Your task to perform on an android device: What's the weather? Image 0: 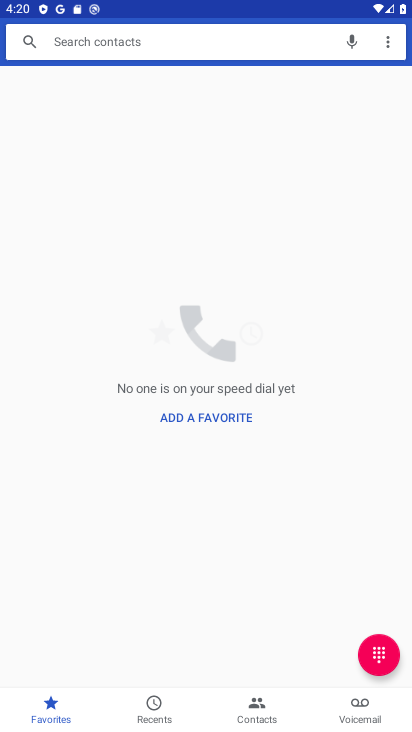
Step 0: press back button
Your task to perform on an android device: What's the weather? Image 1: 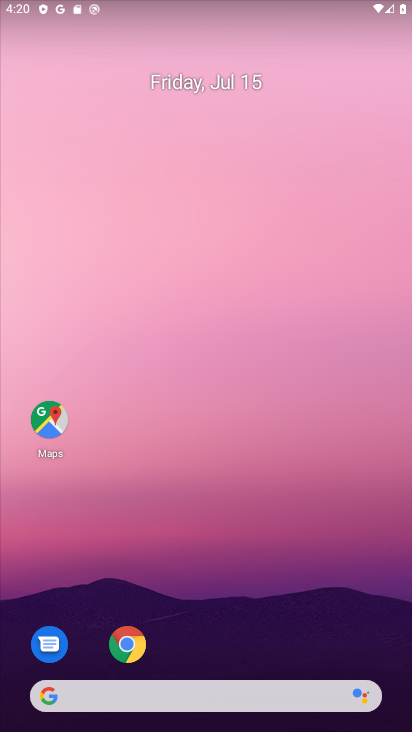
Step 1: drag from (250, 636) to (202, 143)
Your task to perform on an android device: What's the weather? Image 2: 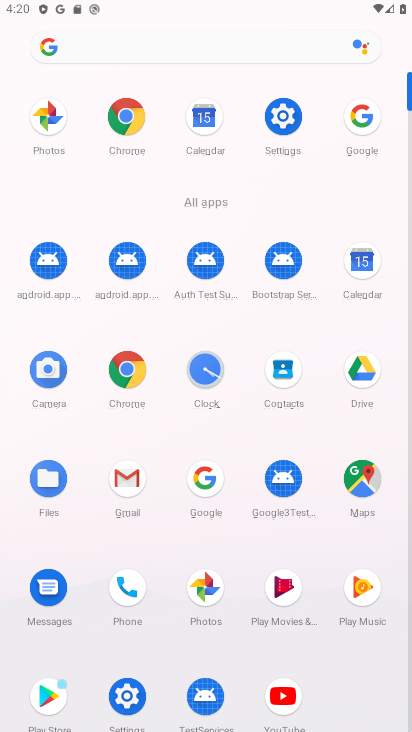
Step 2: click (360, 130)
Your task to perform on an android device: What's the weather? Image 3: 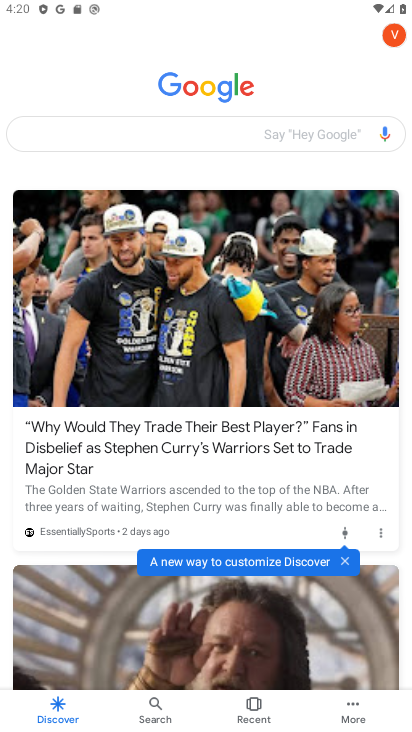
Step 3: click (88, 130)
Your task to perform on an android device: What's the weather? Image 4: 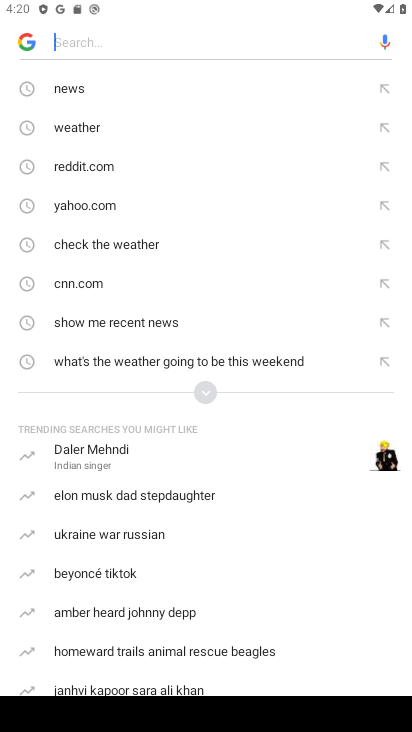
Step 4: click (88, 130)
Your task to perform on an android device: What's the weather? Image 5: 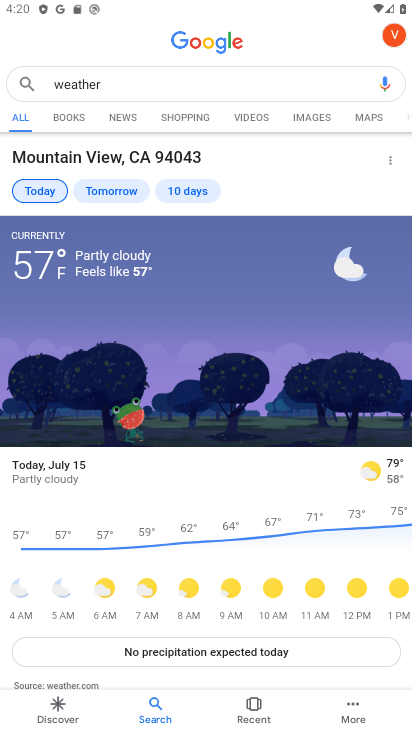
Step 5: task complete